Your task to perform on an android device: change the clock style Image 0: 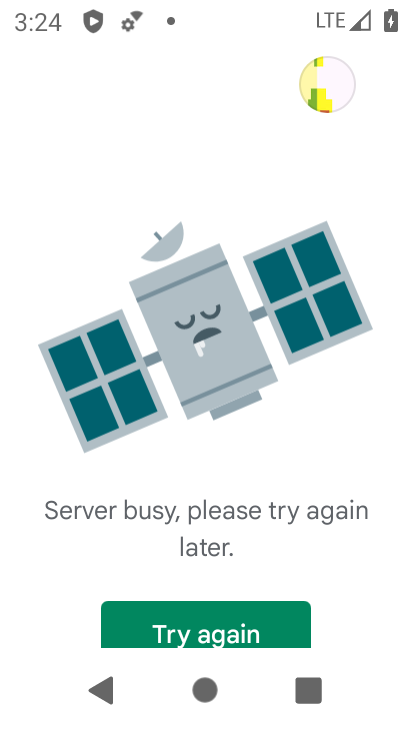
Step 0: press back button
Your task to perform on an android device: change the clock style Image 1: 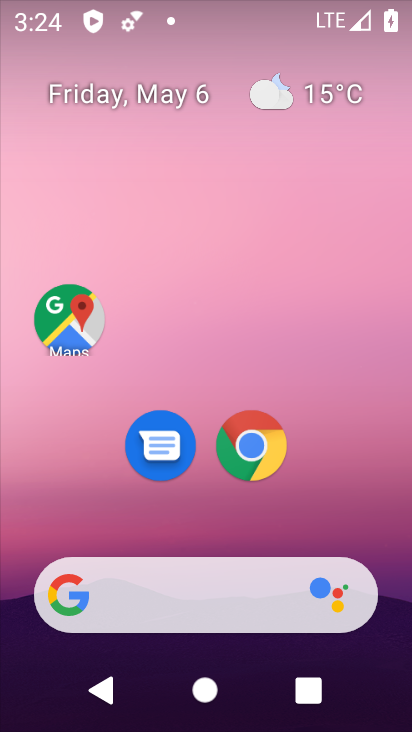
Step 1: drag from (140, 571) to (263, 19)
Your task to perform on an android device: change the clock style Image 2: 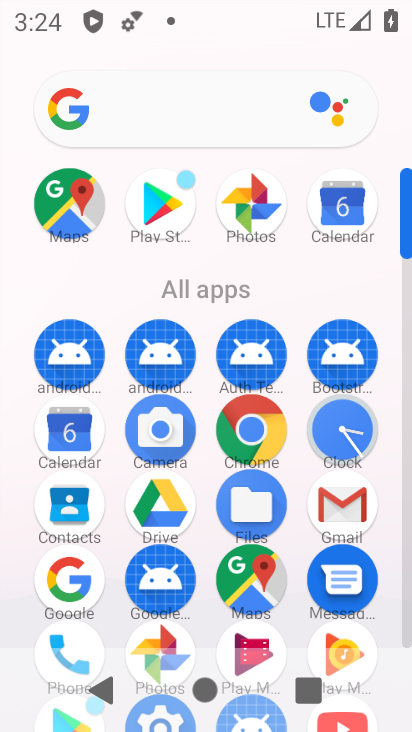
Step 2: click (351, 448)
Your task to perform on an android device: change the clock style Image 3: 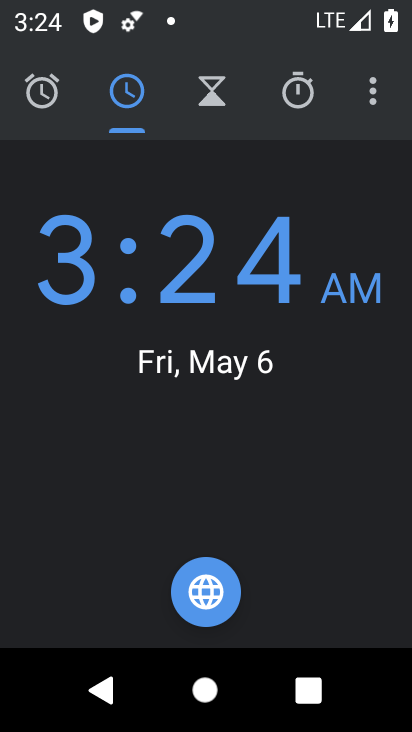
Step 3: click (369, 97)
Your task to perform on an android device: change the clock style Image 4: 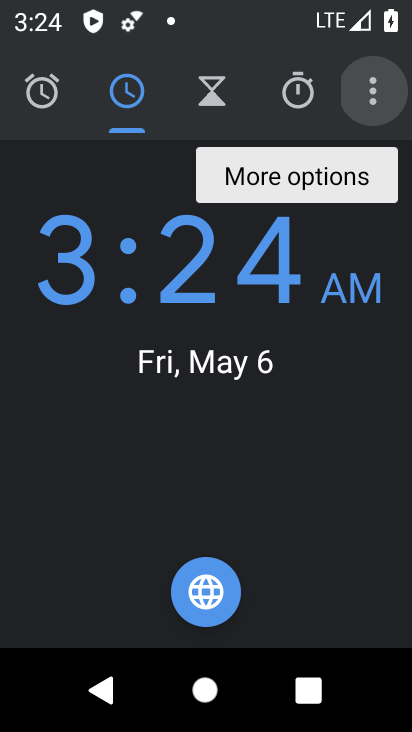
Step 4: click (369, 98)
Your task to perform on an android device: change the clock style Image 5: 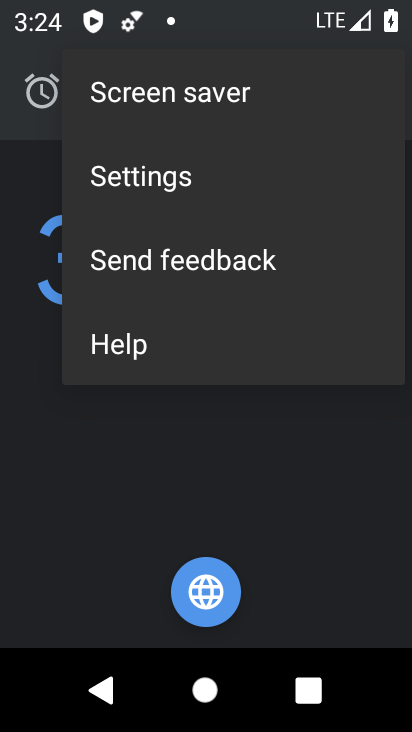
Step 5: click (315, 166)
Your task to perform on an android device: change the clock style Image 6: 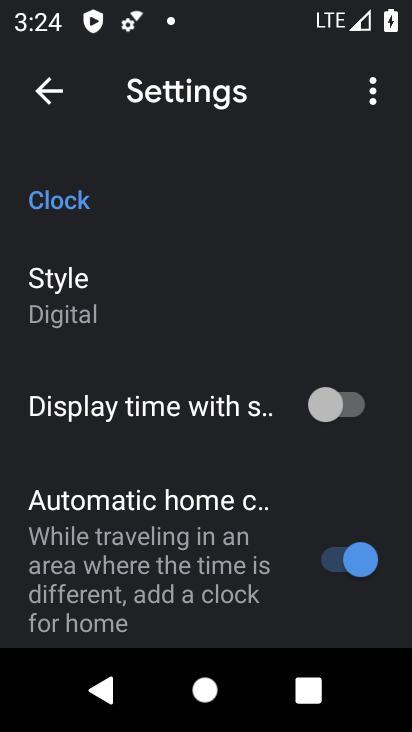
Step 6: click (119, 306)
Your task to perform on an android device: change the clock style Image 7: 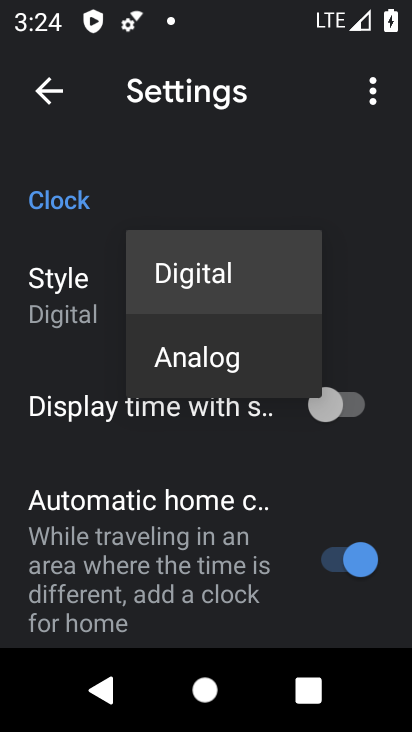
Step 7: click (227, 350)
Your task to perform on an android device: change the clock style Image 8: 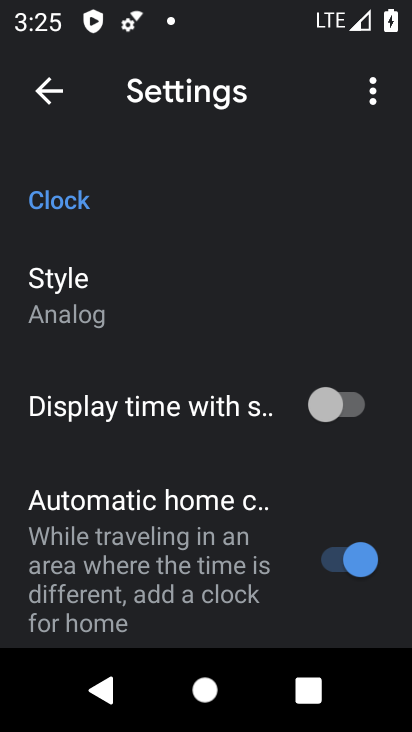
Step 8: task complete